Your task to perform on an android device: Find coffee shops on Maps Image 0: 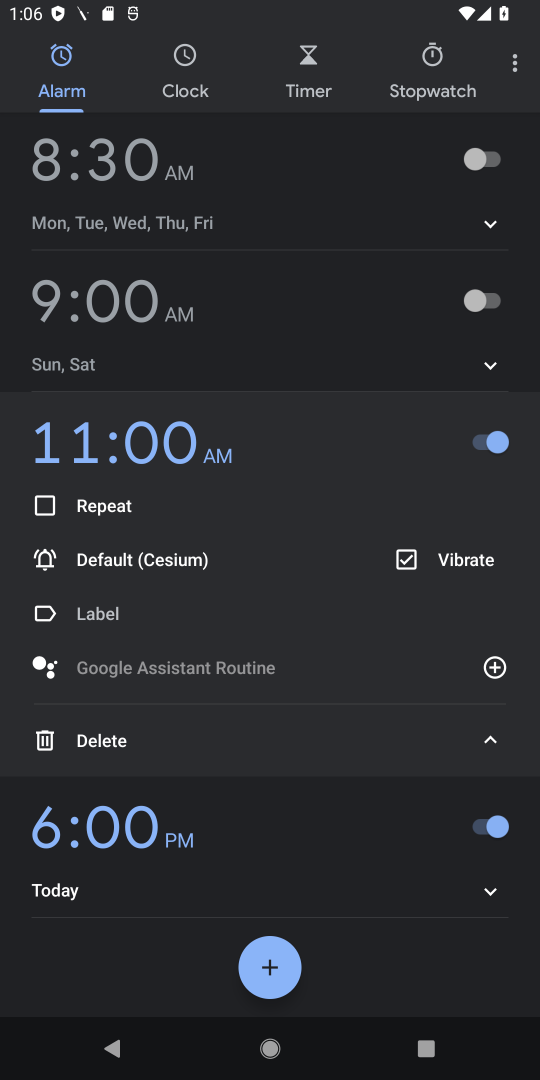
Step 0: press home button
Your task to perform on an android device: Find coffee shops on Maps Image 1: 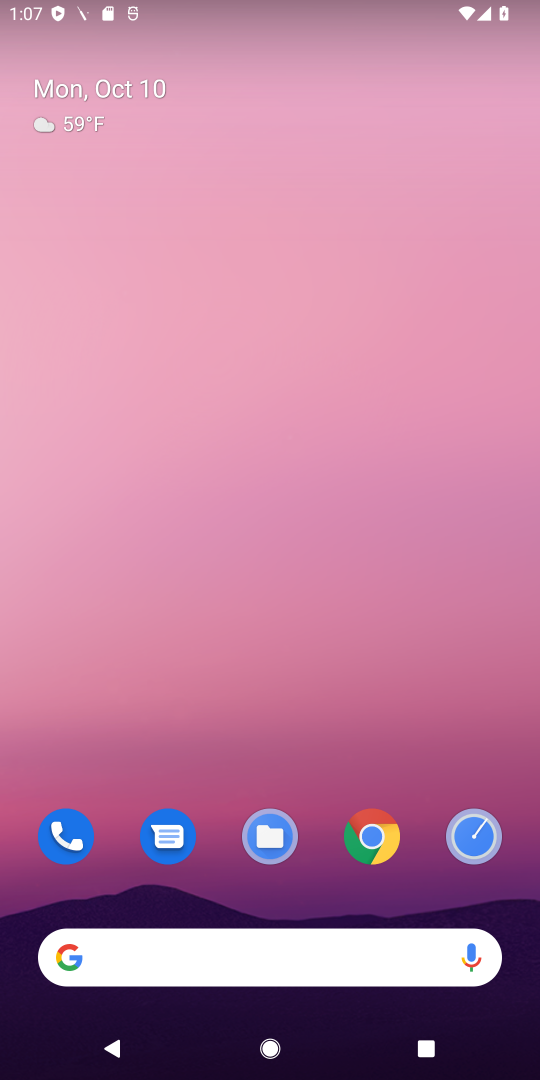
Step 1: drag from (390, 799) to (328, 214)
Your task to perform on an android device: Find coffee shops on Maps Image 2: 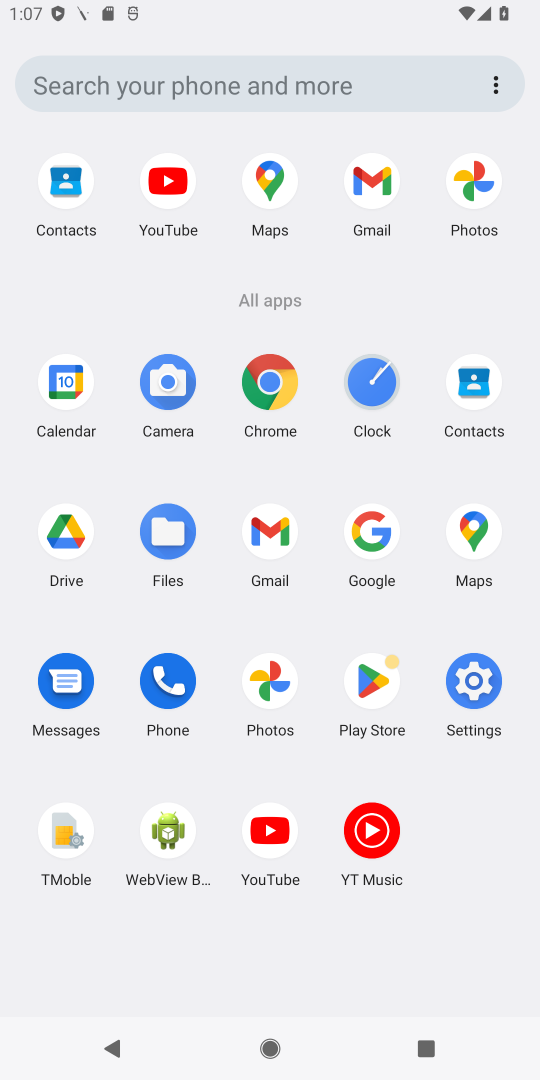
Step 2: click (486, 547)
Your task to perform on an android device: Find coffee shops on Maps Image 3: 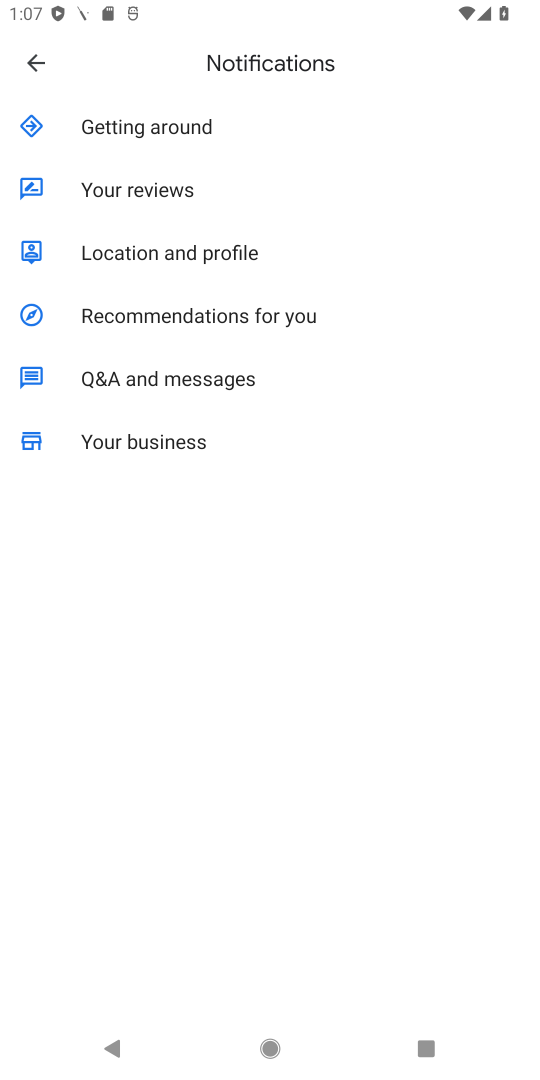
Step 3: click (24, 71)
Your task to perform on an android device: Find coffee shops on Maps Image 4: 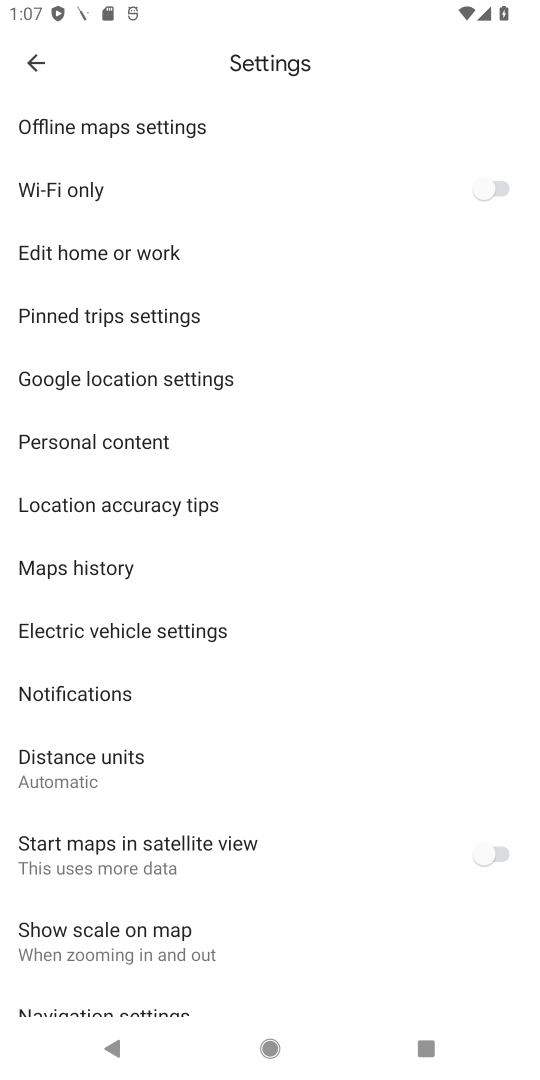
Step 4: click (34, 57)
Your task to perform on an android device: Find coffee shops on Maps Image 5: 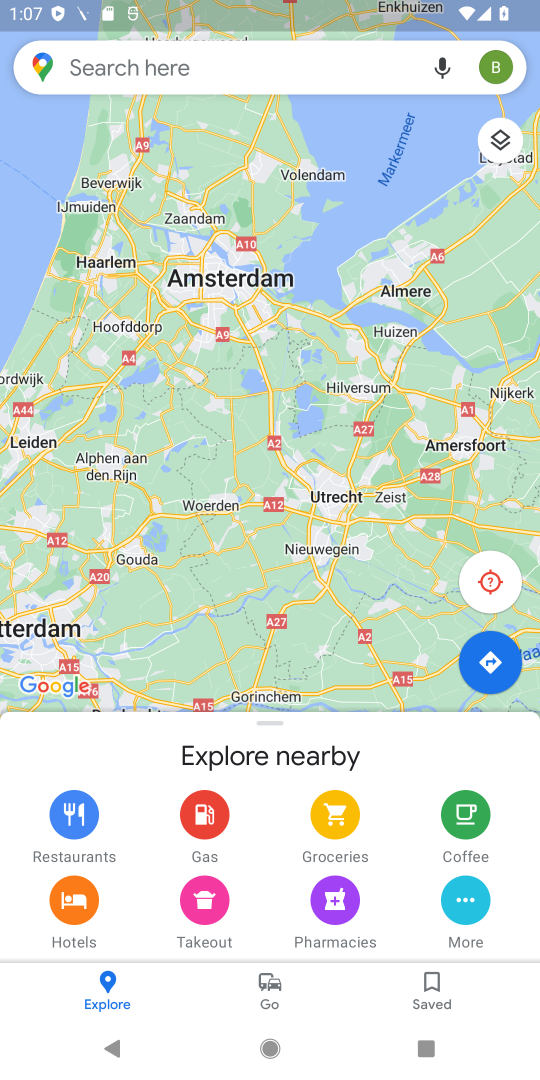
Step 5: click (271, 72)
Your task to perform on an android device: Find coffee shops on Maps Image 6: 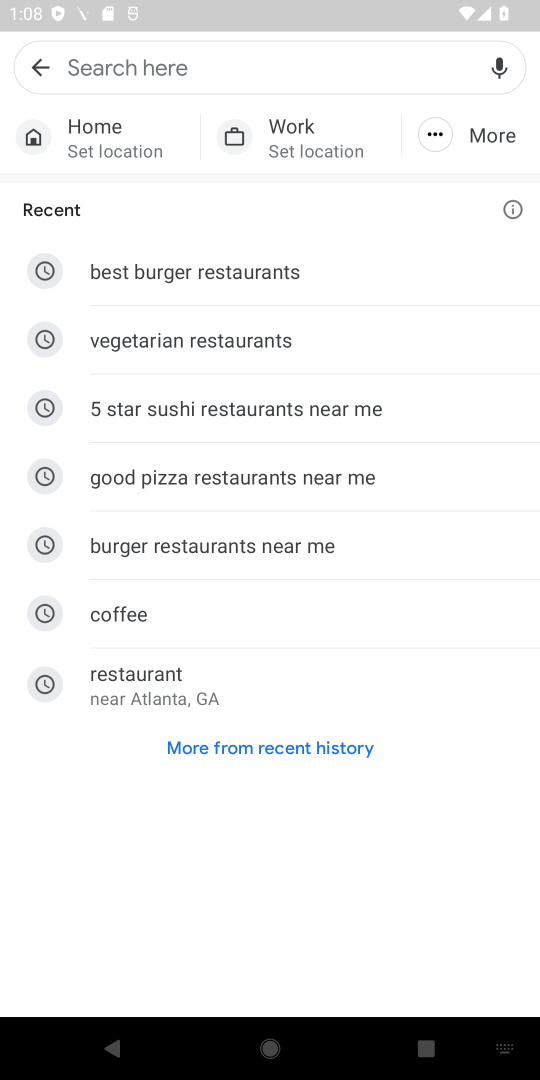
Step 6: type "coffee shops"
Your task to perform on an android device: Find coffee shops on Maps Image 7: 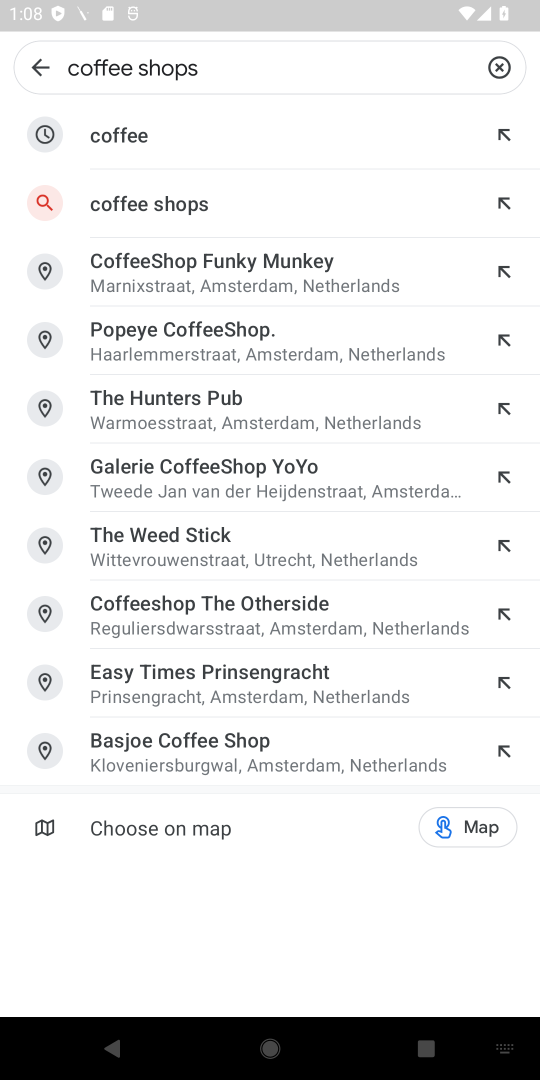
Step 7: click (217, 194)
Your task to perform on an android device: Find coffee shops on Maps Image 8: 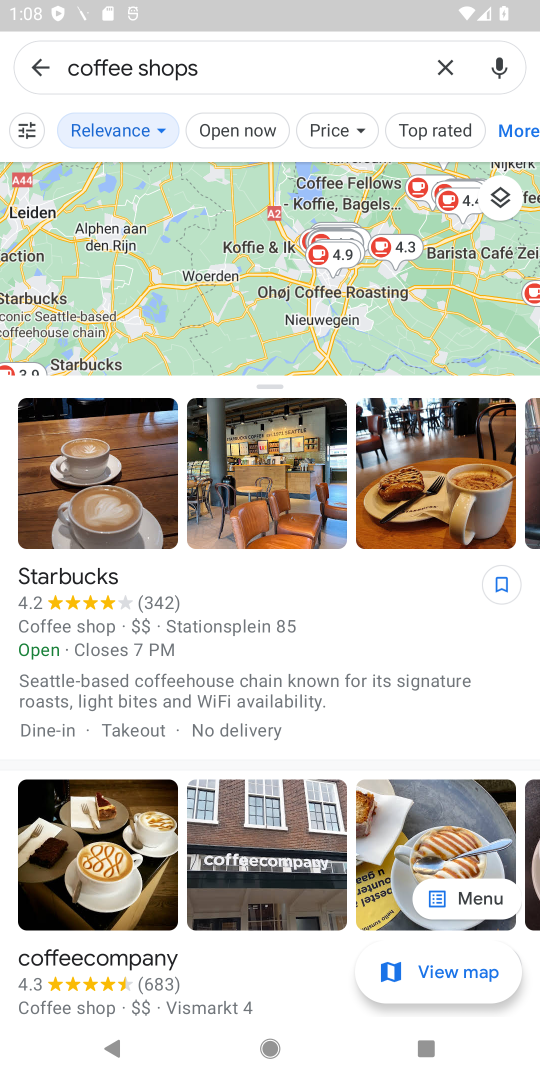
Step 8: task complete